Your task to perform on an android device: Check the weather Image 0: 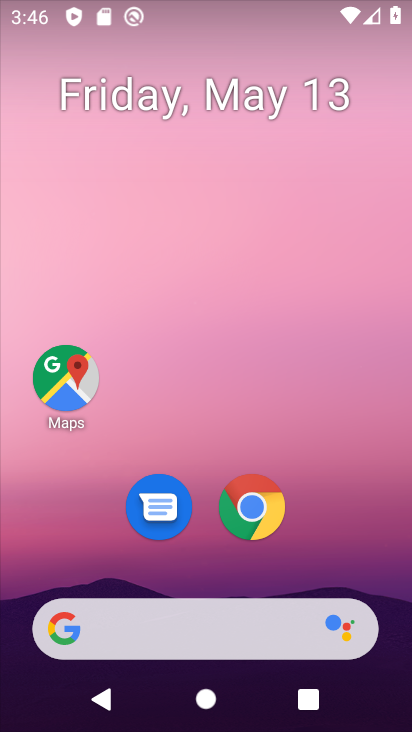
Step 0: click (255, 506)
Your task to perform on an android device: Check the weather Image 1: 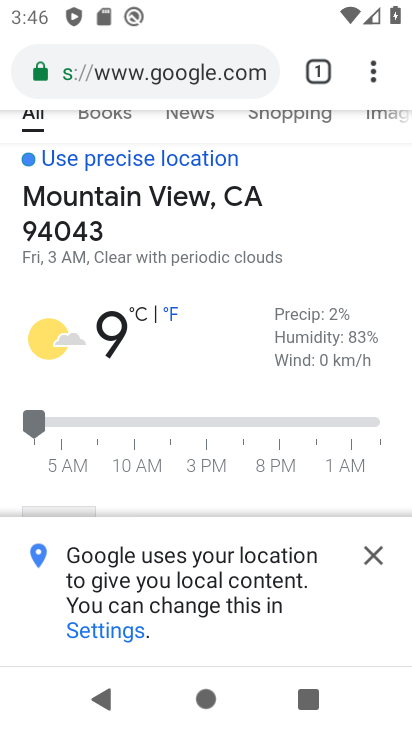
Step 1: task complete